Your task to perform on an android device: change the clock display to analog Image 0: 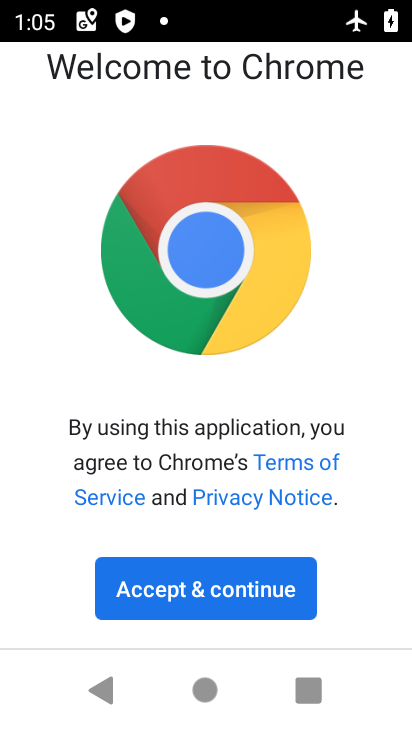
Step 0: press home button
Your task to perform on an android device: change the clock display to analog Image 1: 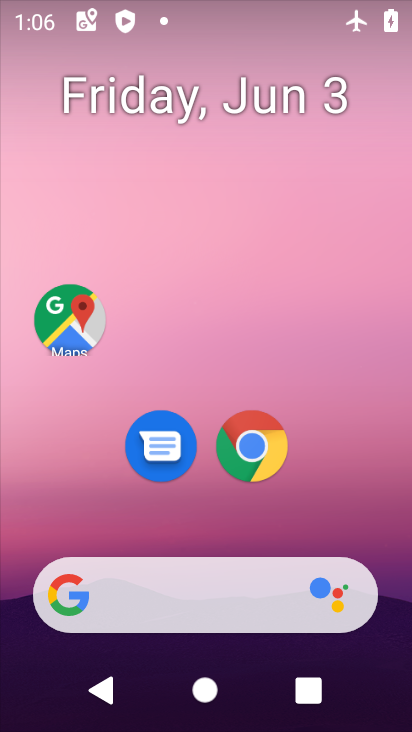
Step 1: drag from (252, 644) to (254, 28)
Your task to perform on an android device: change the clock display to analog Image 2: 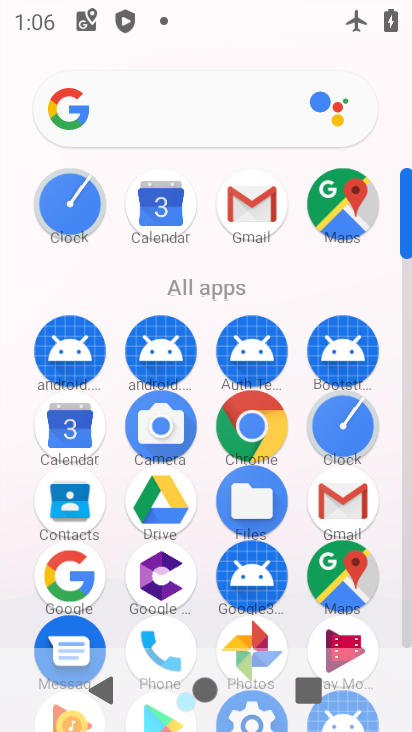
Step 2: click (363, 433)
Your task to perform on an android device: change the clock display to analog Image 3: 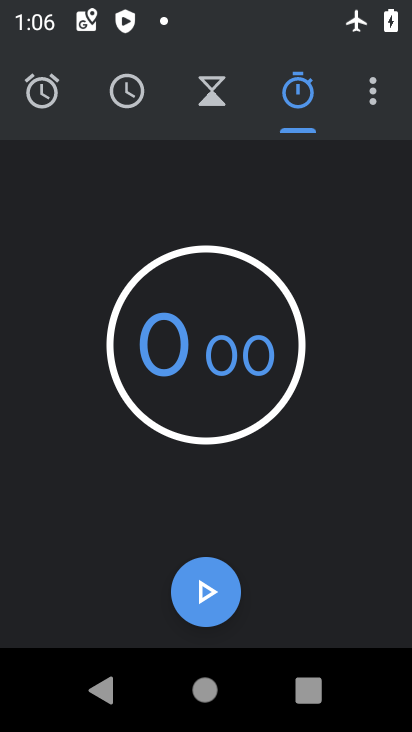
Step 3: click (371, 93)
Your task to perform on an android device: change the clock display to analog Image 4: 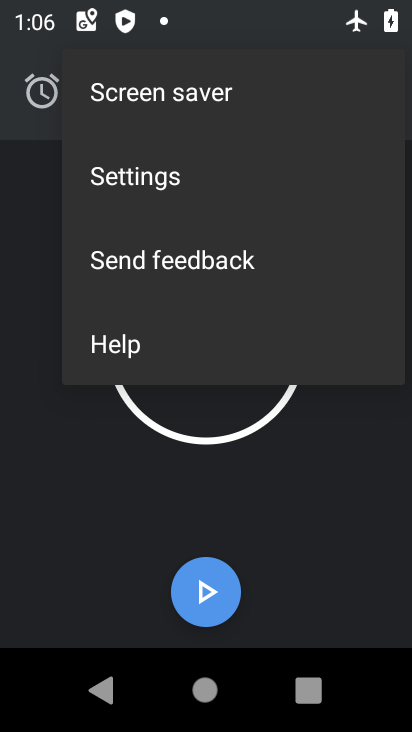
Step 4: click (163, 186)
Your task to perform on an android device: change the clock display to analog Image 5: 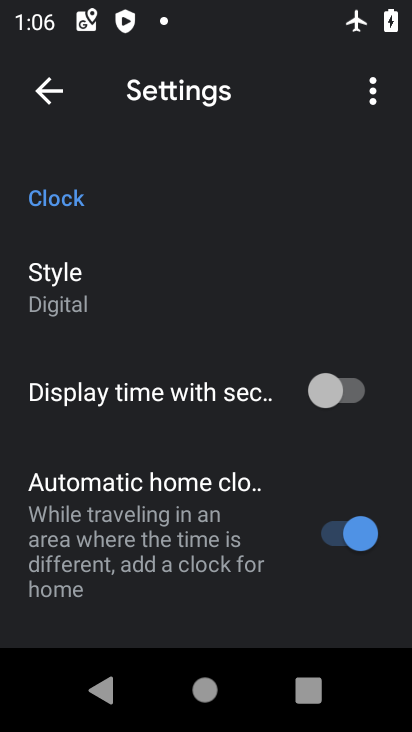
Step 5: click (61, 281)
Your task to perform on an android device: change the clock display to analog Image 6: 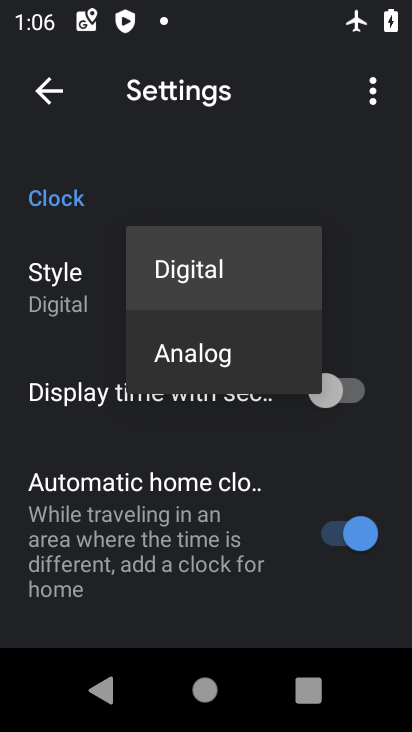
Step 6: click (224, 364)
Your task to perform on an android device: change the clock display to analog Image 7: 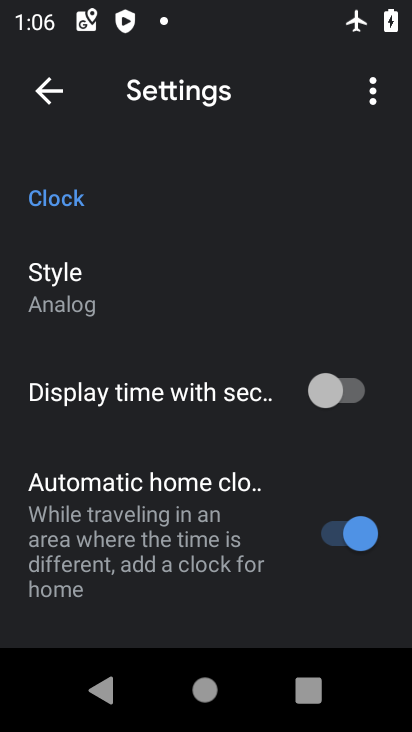
Step 7: task complete